Your task to perform on an android device: delete browsing data in the chrome app Image 0: 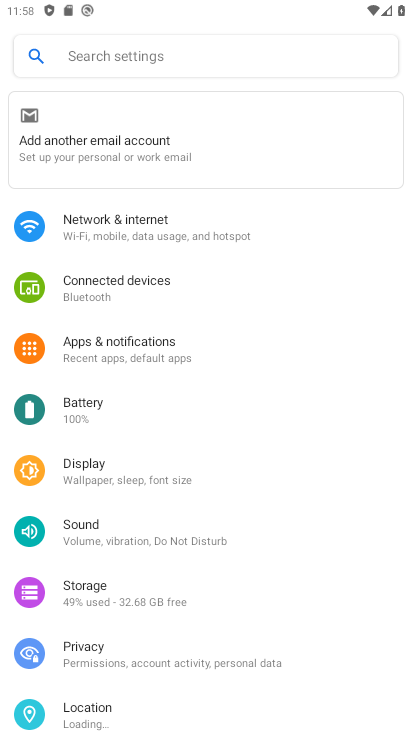
Step 0: press home button
Your task to perform on an android device: delete browsing data in the chrome app Image 1: 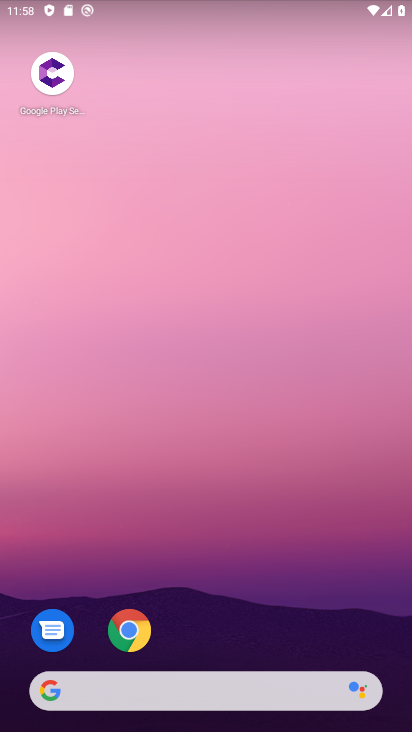
Step 1: click (120, 616)
Your task to perform on an android device: delete browsing data in the chrome app Image 2: 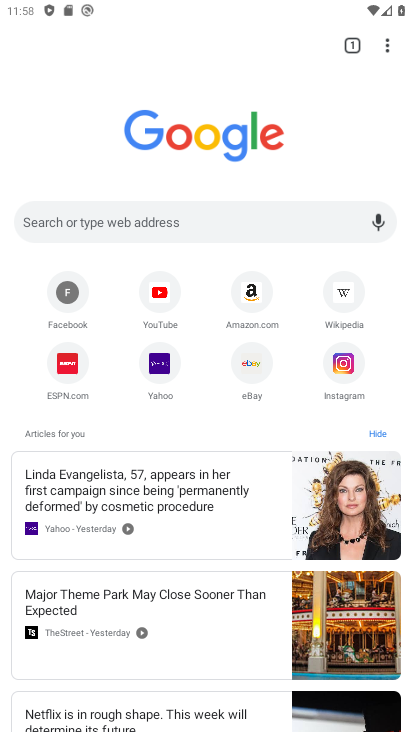
Step 2: click (384, 43)
Your task to perform on an android device: delete browsing data in the chrome app Image 3: 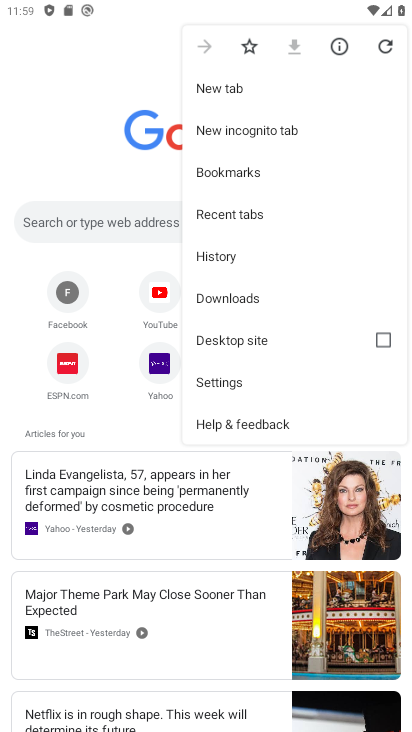
Step 3: click (205, 374)
Your task to perform on an android device: delete browsing data in the chrome app Image 4: 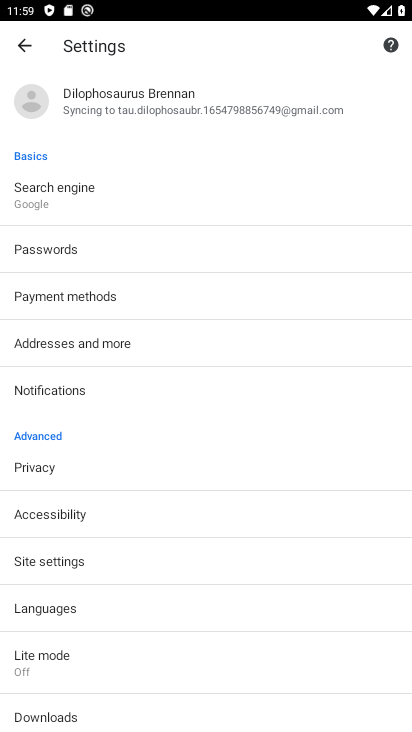
Step 4: click (45, 462)
Your task to perform on an android device: delete browsing data in the chrome app Image 5: 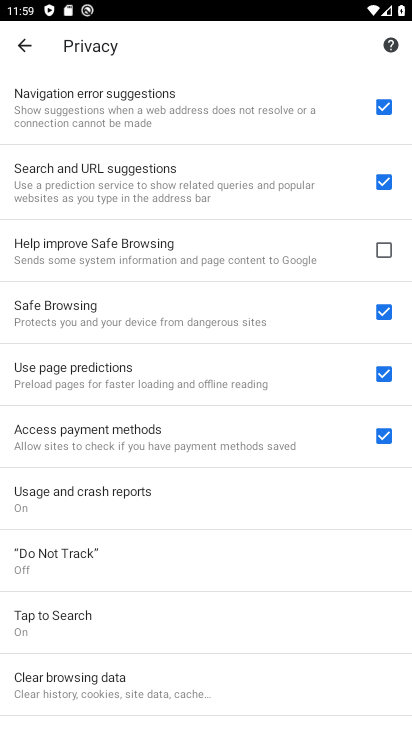
Step 5: click (114, 677)
Your task to perform on an android device: delete browsing data in the chrome app Image 6: 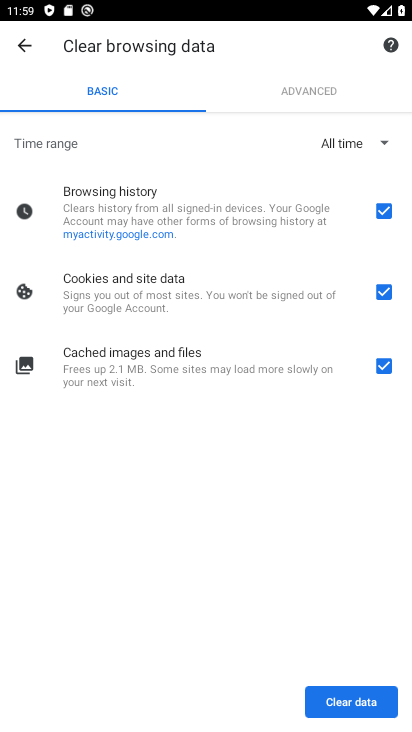
Step 6: click (367, 293)
Your task to perform on an android device: delete browsing data in the chrome app Image 7: 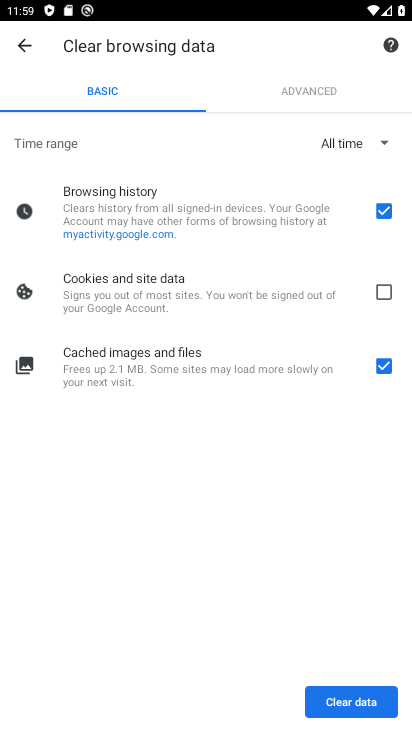
Step 7: click (379, 289)
Your task to perform on an android device: delete browsing data in the chrome app Image 8: 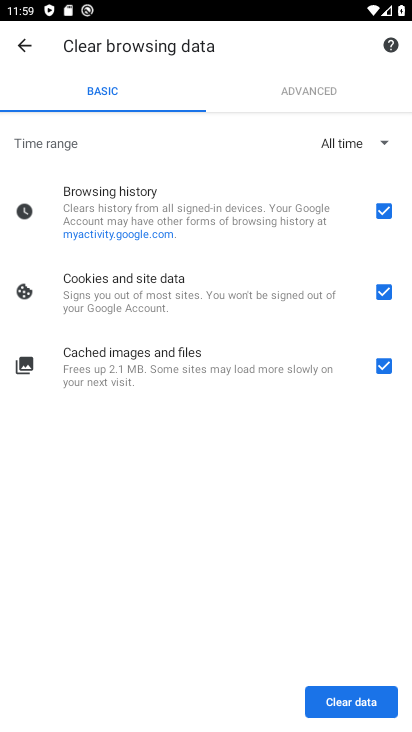
Step 8: click (380, 359)
Your task to perform on an android device: delete browsing data in the chrome app Image 9: 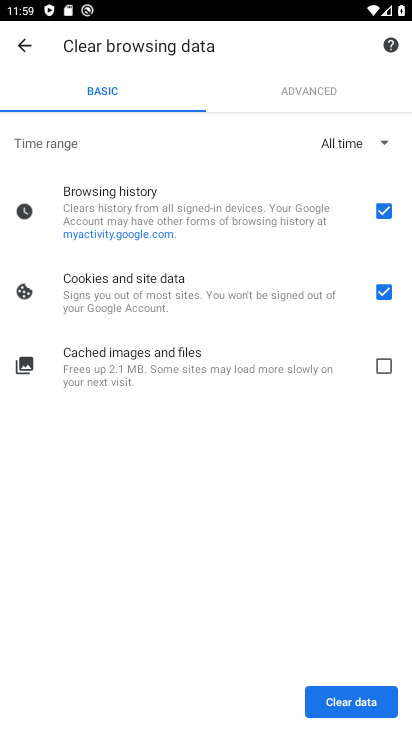
Step 9: click (383, 288)
Your task to perform on an android device: delete browsing data in the chrome app Image 10: 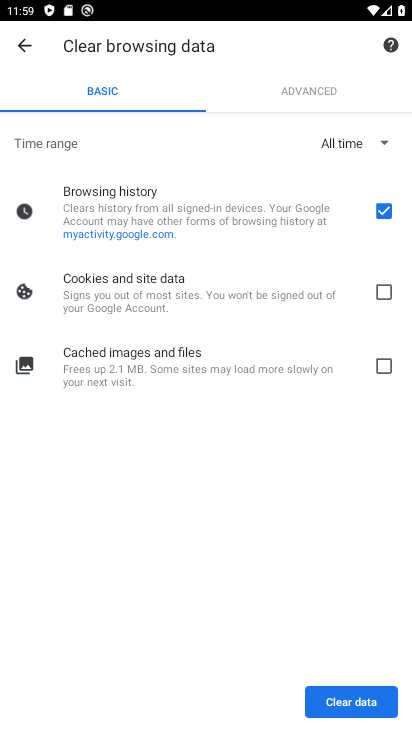
Step 10: task complete